Your task to perform on an android device: Go to Yahoo.com Image 0: 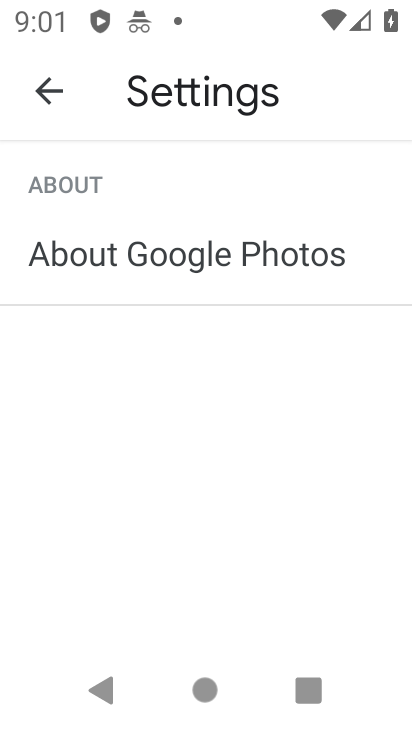
Step 0: press home button
Your task to perform on an android device: Go to Yahoo.com Image 1: 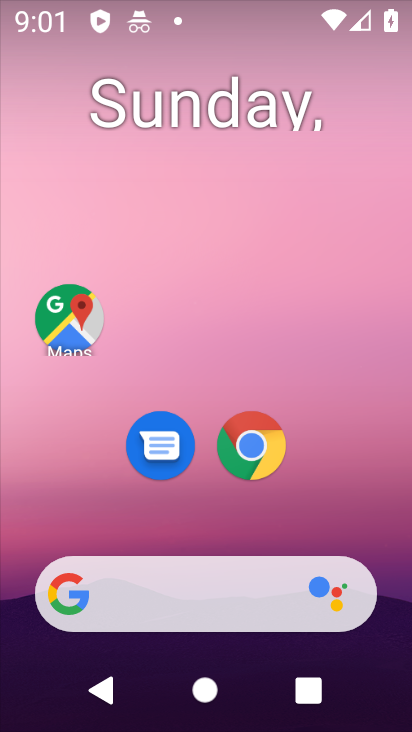
Step 1: drag from (189, 524) to (396, 0)
Your task to perform on an android device: Go to Yahoo.com Image 2: 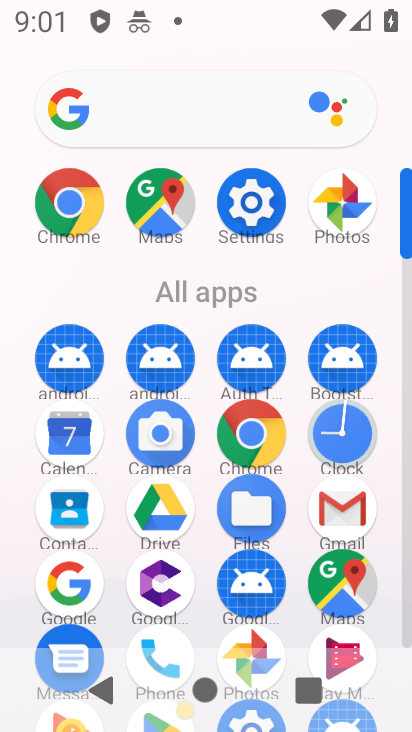
Step 2: click (259, 429)
Your task to perform on an android device: Go to Yahoo.com Image 3: 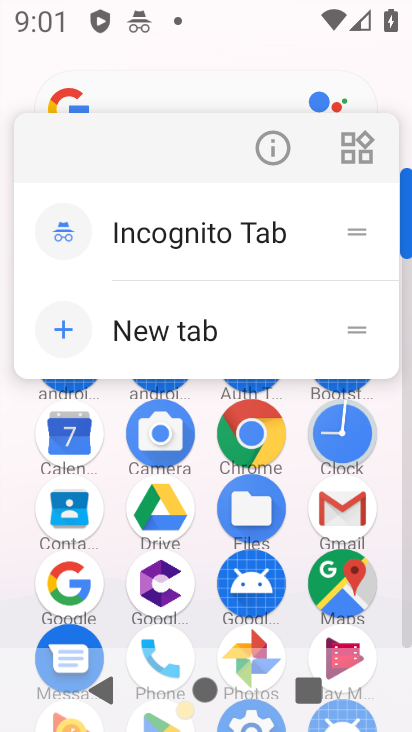
Step 3: click (259, 429)
Your task to perform on an android device: Go to Yahoo.com Image 4: 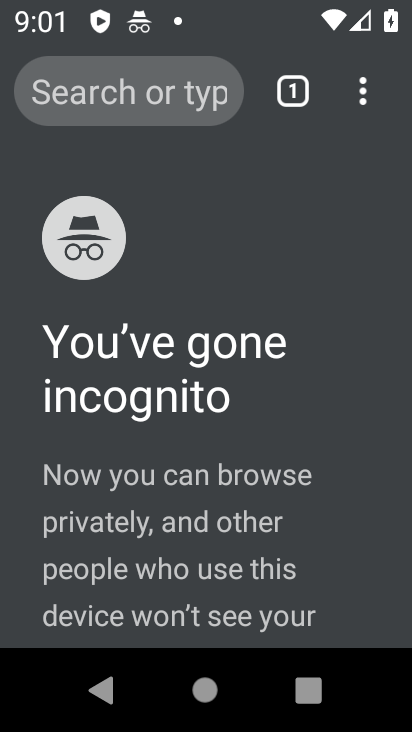
Step 4: click (147, 88)
Your task to perform on an android device: Go to Yahoo.com Image 5: 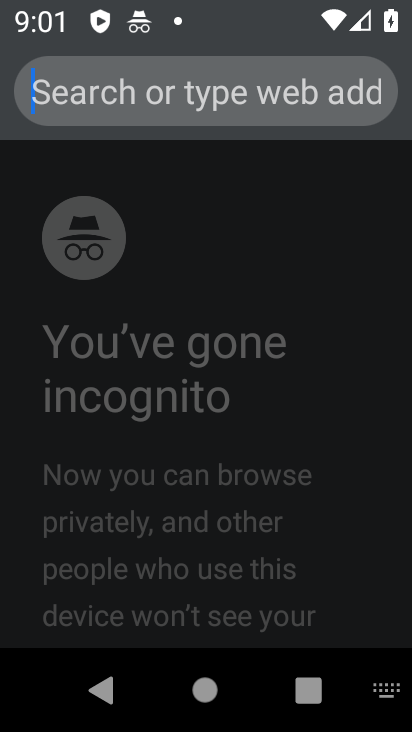
Step 5: type " Yahoo.com"
Your task to perform on an android device: Go to Yahoo.com Image 6: 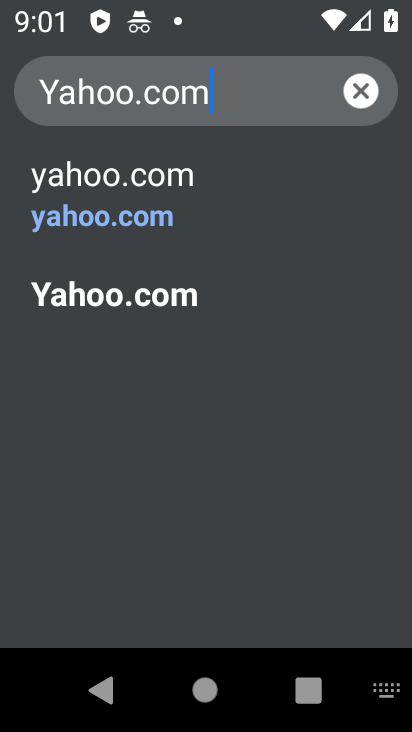
Step 6: click (150, 210)
Your task to perform on an android device: Go to Yahoo.com Image 7: 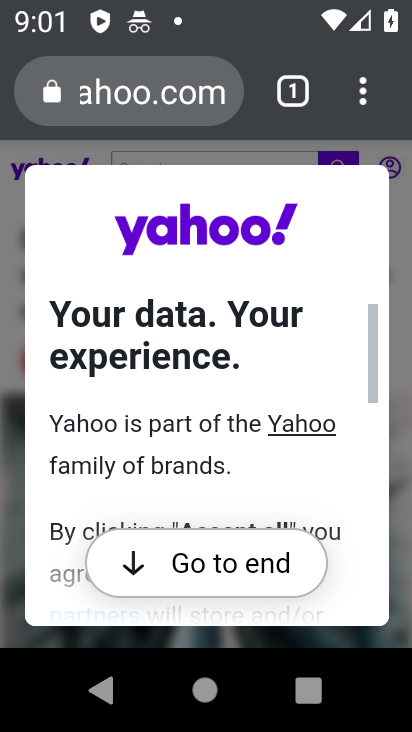
Step 7: drag from (299, 598) to (300, 259)
Your task to perform on an android device: Go to Yahoo.com Image 8: 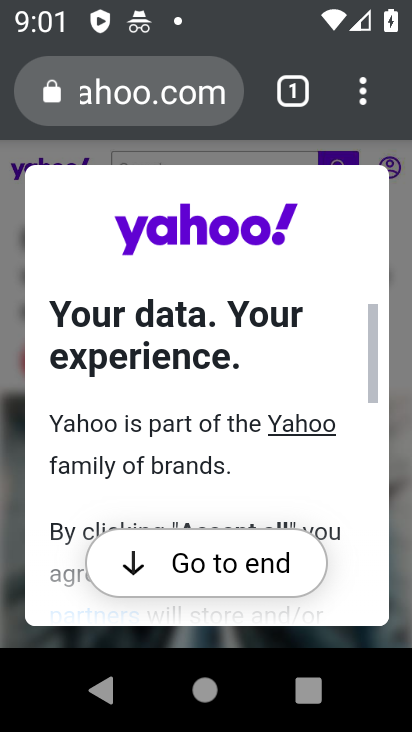
Step 8: drag from (315, 513) to (304, 244)
Your task to perform on an android device: Go to Yahoo.com Image 9: 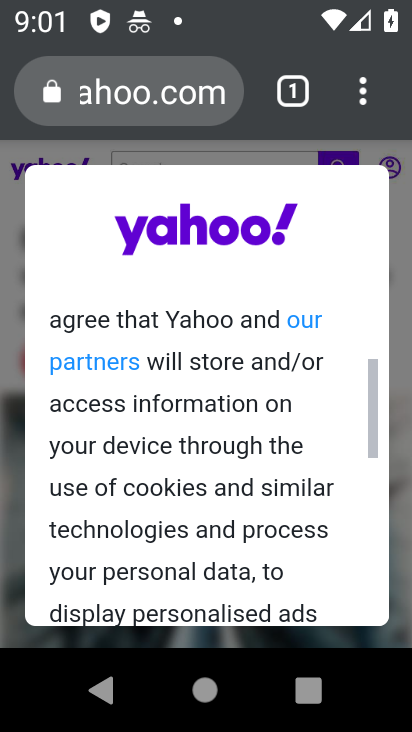
Step 9: drag from (291, 541) to (292, 239)
Your task to perform on an android device: Go to Yahoo.com Image 10: 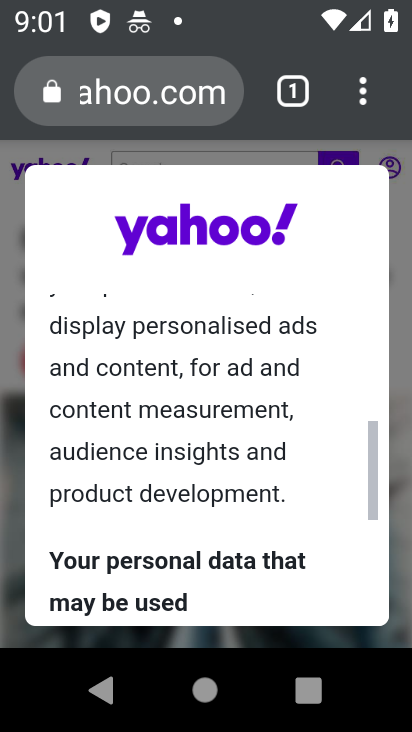
Step 10: drag from (277, 578) to (254, 225)
Your task to perform on an android device: Go to Yahoo.com Image 11: 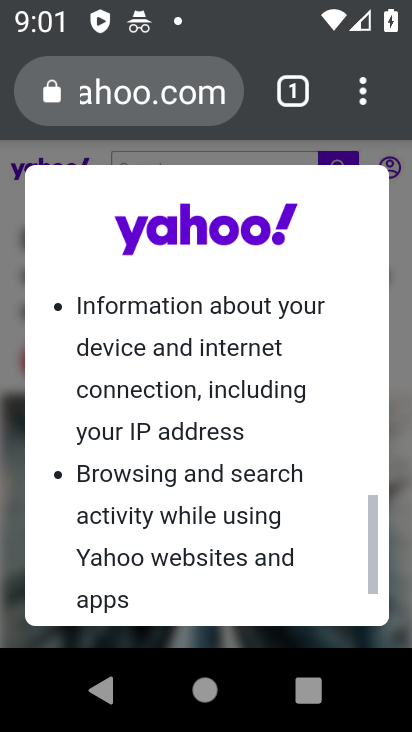
Step 11: drag from (227, 564) to (254, 222)
Your task to perform on an android device: Go to Yahoo.com Image 12: 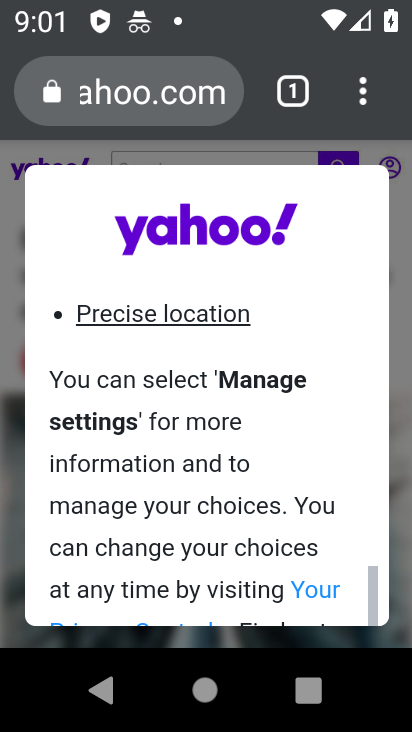
Step 12: drag from (244, 583) to (298, 131)
Your task to perform on an android device: Go to Yahoo.com Image 13: 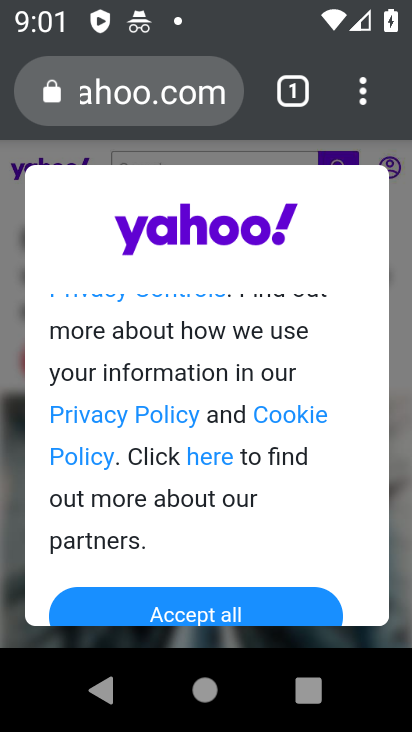
Step 13: click (240, 597)
Your task to perform on an android device: Go to Yahoo.com Image 14: 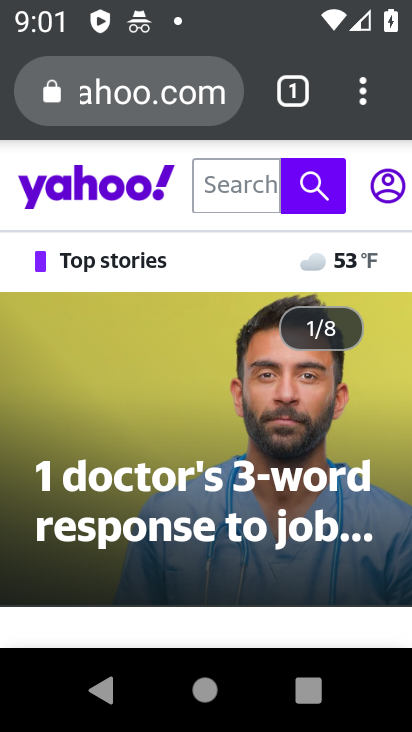
Step 14: task complete